Your task to perform on an android device: visit the assistant section in the google photos Image 0: 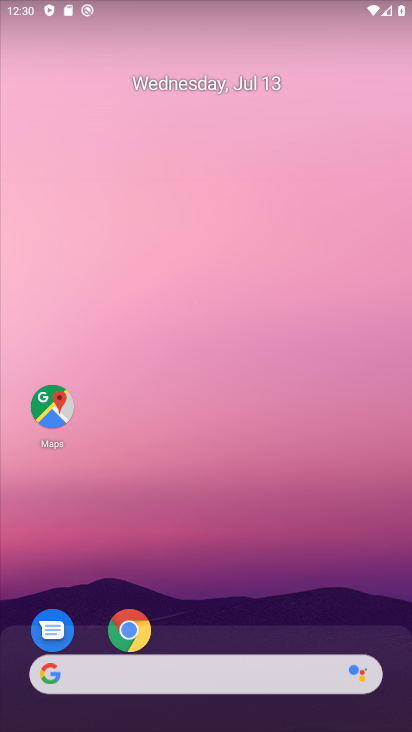
Step 0: drag from (40, 616) to (229, 52)
Your task to perform on an android device: visit the assistant section in the google photos Image 1: 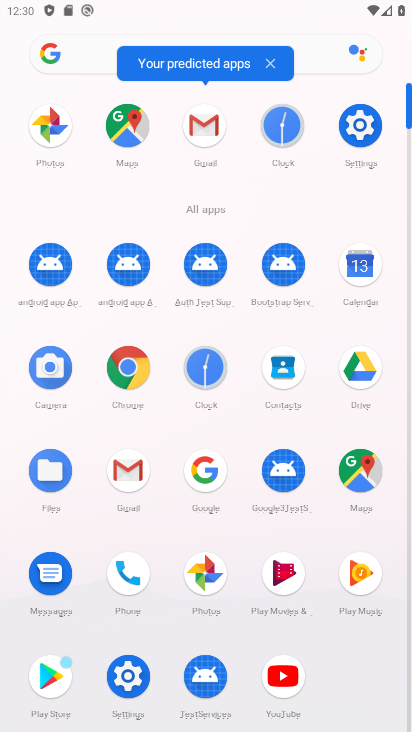
Step 1: click (202, 571)
Your task to perform on an android device: visit the assistant section in the google photos Image 2: 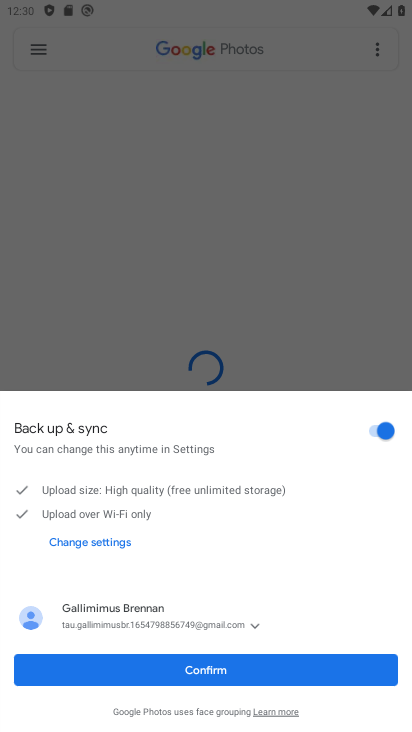
Step 2: click (282, 677)
Your task to perform on an android device: visit the assistant section in the google photos Image 3: 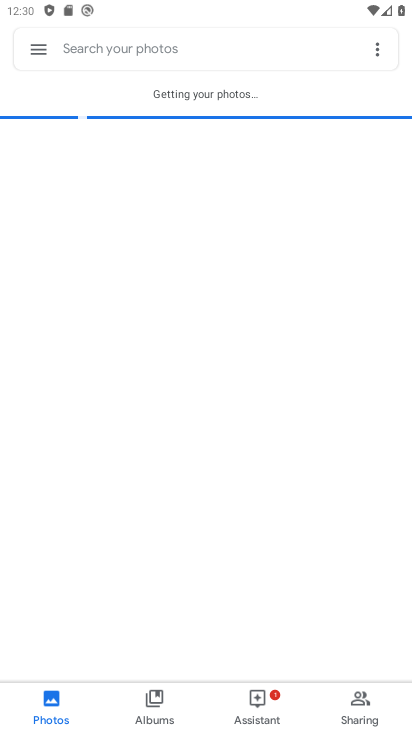
Step 3: click (254, 705)
Your task to perform on an android device: visit the assistant section in the google photos Image 4: 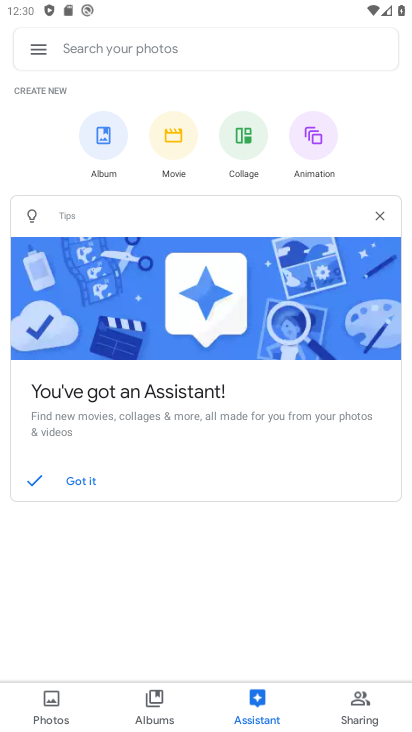
Step 4: task complete